Your task to perform on an android device: empty trash in the gmail app Image 0: 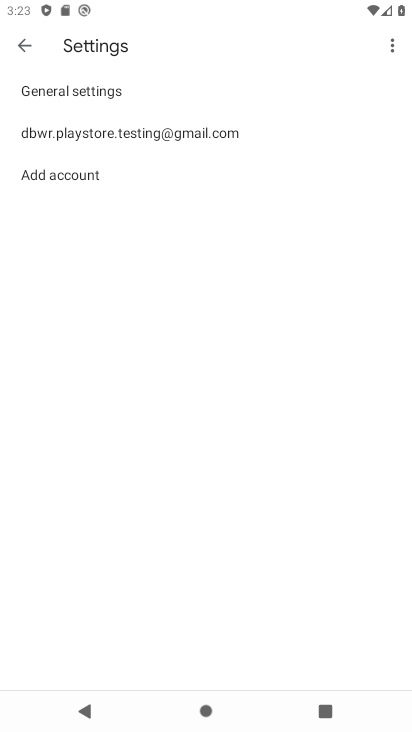
Step 0: press home button
Your task to perform on an android device: empty trash in the gmail app Image 1: 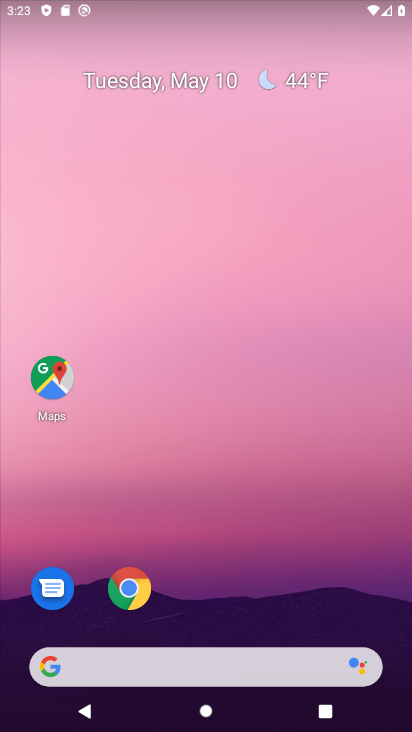
Step 1: drag from (283, 569) to (221, 100)
Your task to perform on an android device: empty trash in the gmail app Image 2: 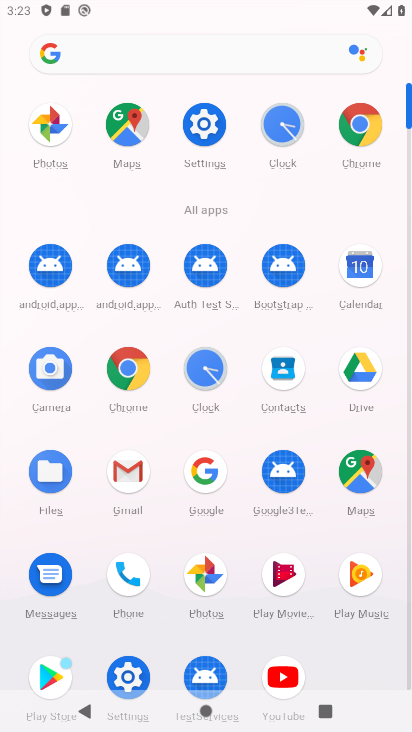
Step 2: click (130, 481)
Your task to perform on an android device: empty trash in the gmail app Image 3: 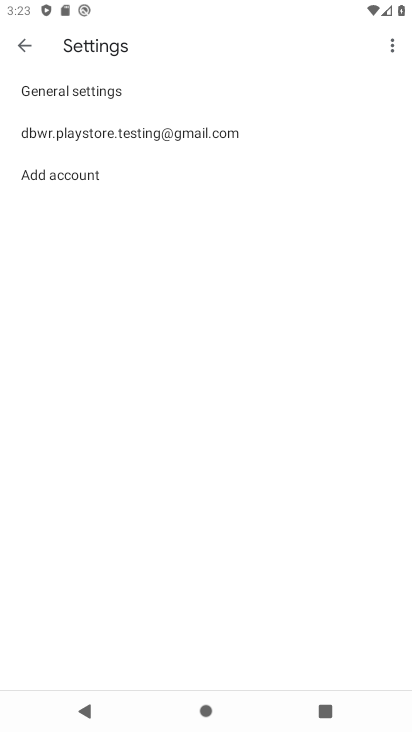
Step 3: click (59, 131)
Your task to perform on an android device: empty trash in the gmail app Image 4: 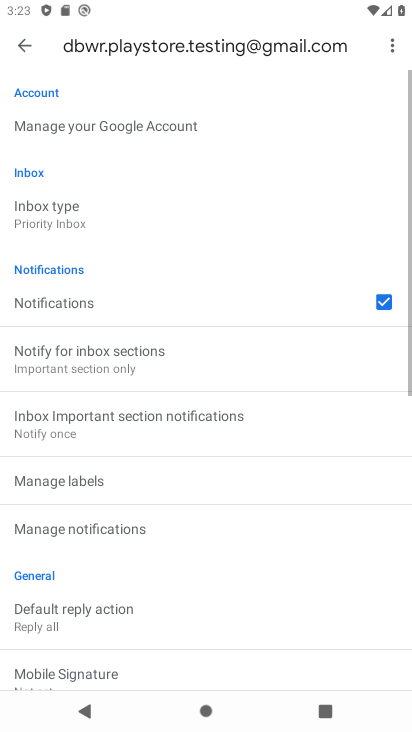
Step 4: click (26, 44)
Your task to perform on an android device: empty trash in the gmail app Image 5: 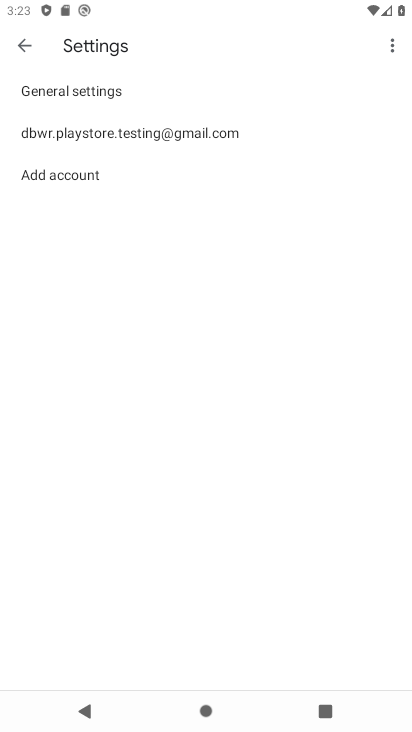
Step 5: click (26, 44)
Your task to perform on an android device: empty trash in the gmail app Image 6: 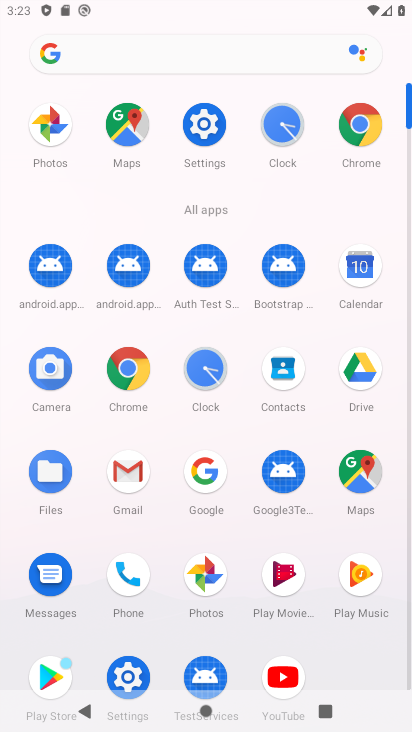
Step 6: click (131, 497)
Your task to perform on an android device: empty trash in the gmail app Image 7: 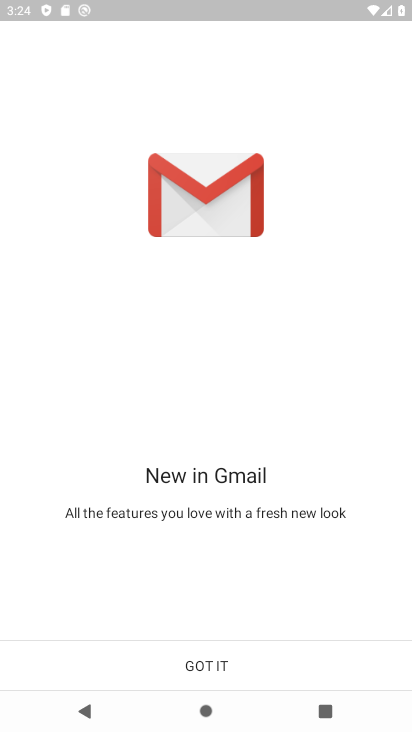
Step 7: click (190, 659)
Your task to perform on an android device: empty trash in the gmail app Image 8: 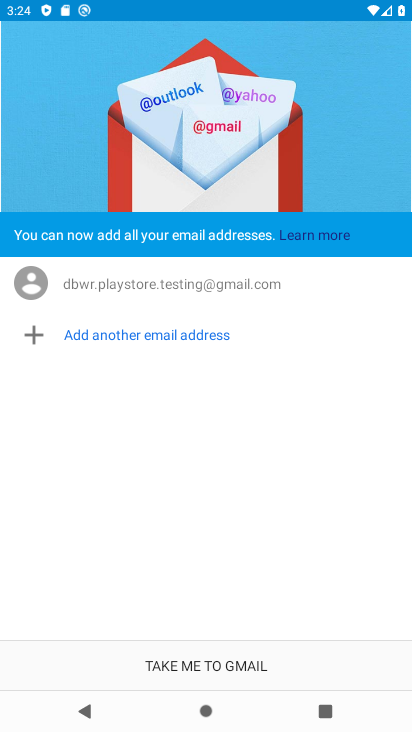
Step 8: click (150, 656)
Your task to perform on an android device: empty trash in the gmail app Image 9: 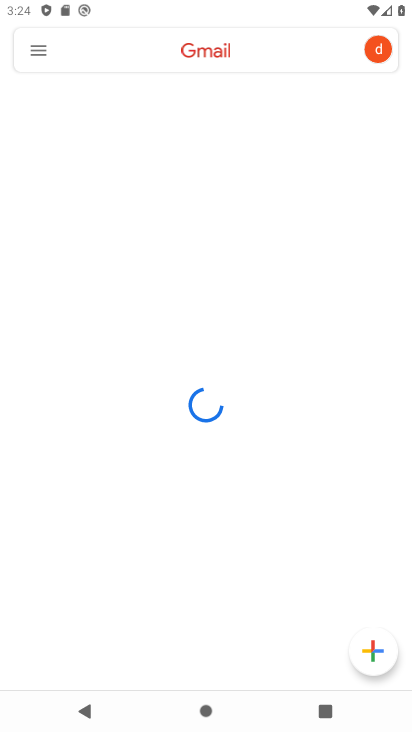
Step 9: click (38, 54)
Your task to perform on an android device: empty trash in the gmail app Image 10: 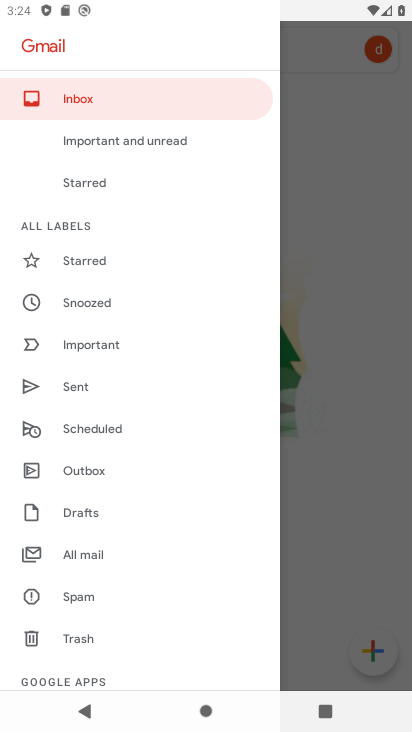
Step 10: click (100, 630)
Your task to perform on an android device: empty trash in the gmail app Image 11: 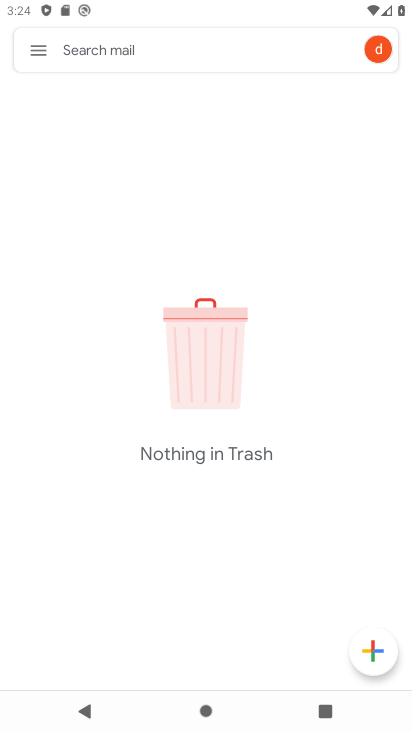
Step 11: task complete